Your task to perform on an android device: Go to Reddit.com Image 0: 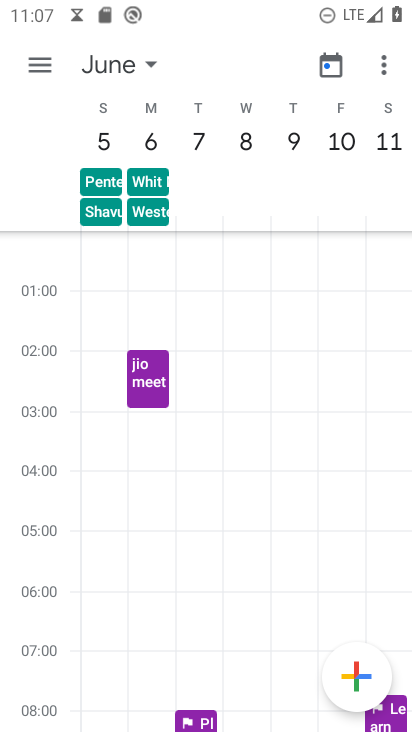
Step 0: press home button
Your task to perform on an android device: Go to Reddit.com Image 1: 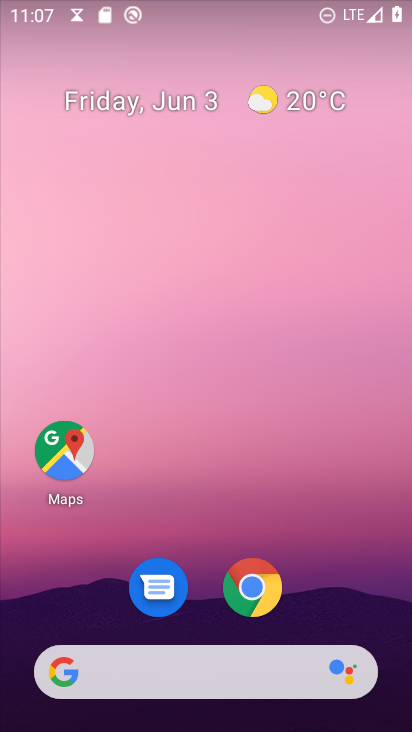
Step 1: click (263, 580)
Your task to perform on an android device: Go to Reddit.com Image 2: 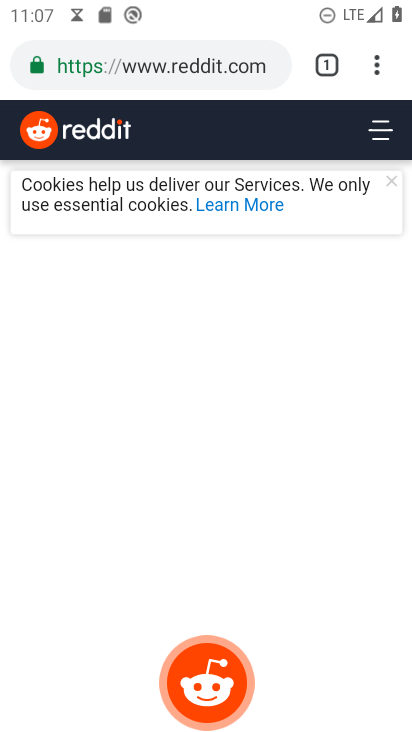
Step 2: task complete